Your task to perform on an android device: Search for razer blade on newegg, select the first entry, add it to the cart, then select checkout. Image 0: 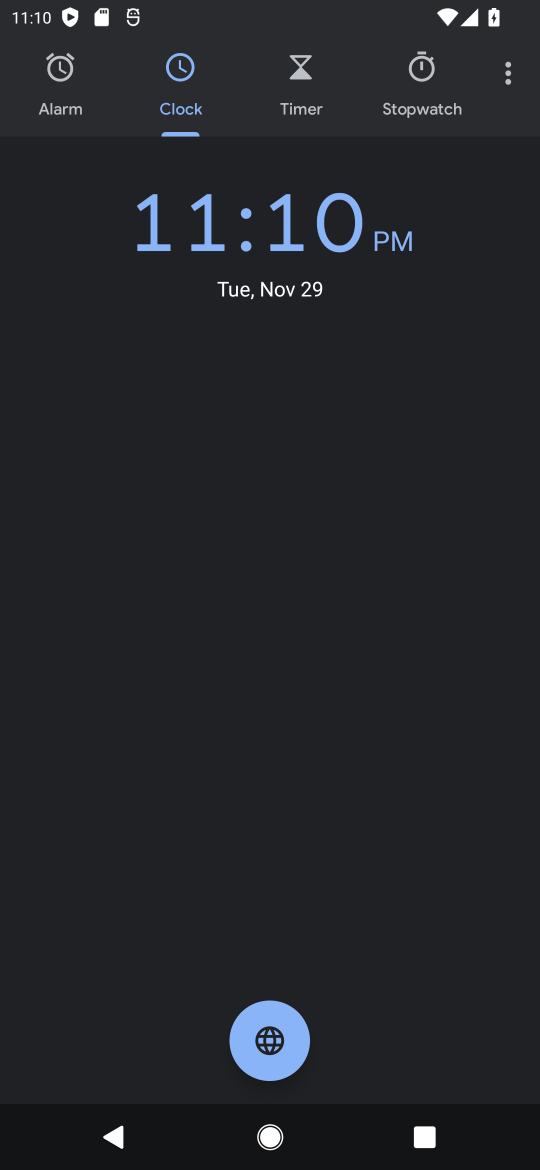
Step 0: press home button
Your task to perform on an android device: Search for razer blade on newegg, select the first entry, add it to the cart, then select checkout. Image 1: 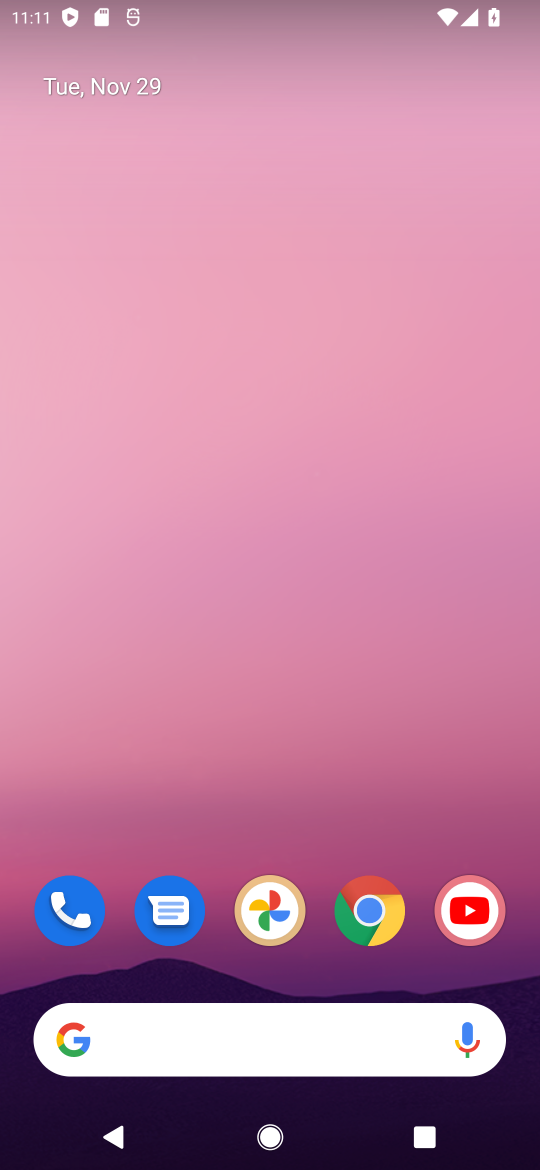
Step 1: click (360, 915)
Your task to perform on an android device: Search for razer blade on newegg, select the first entry, add it to the cart, then select checkout. Image 2: 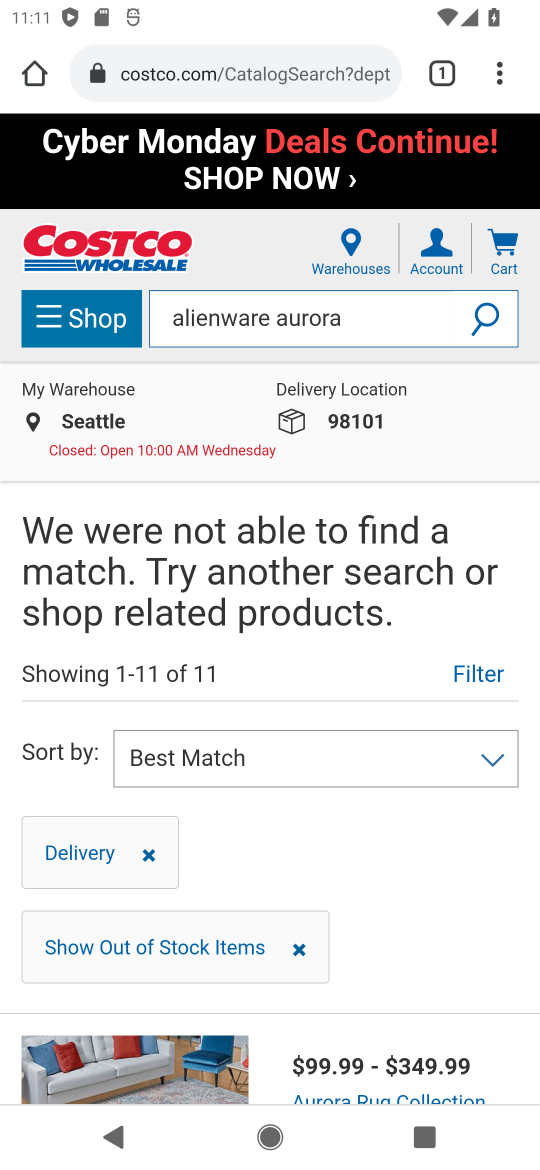
Step 2: click (231, 71)
Your task to perform on an android device: Search for razer blade on newegg, select the first entry, add it to the cart, then select checkout. Image 3: 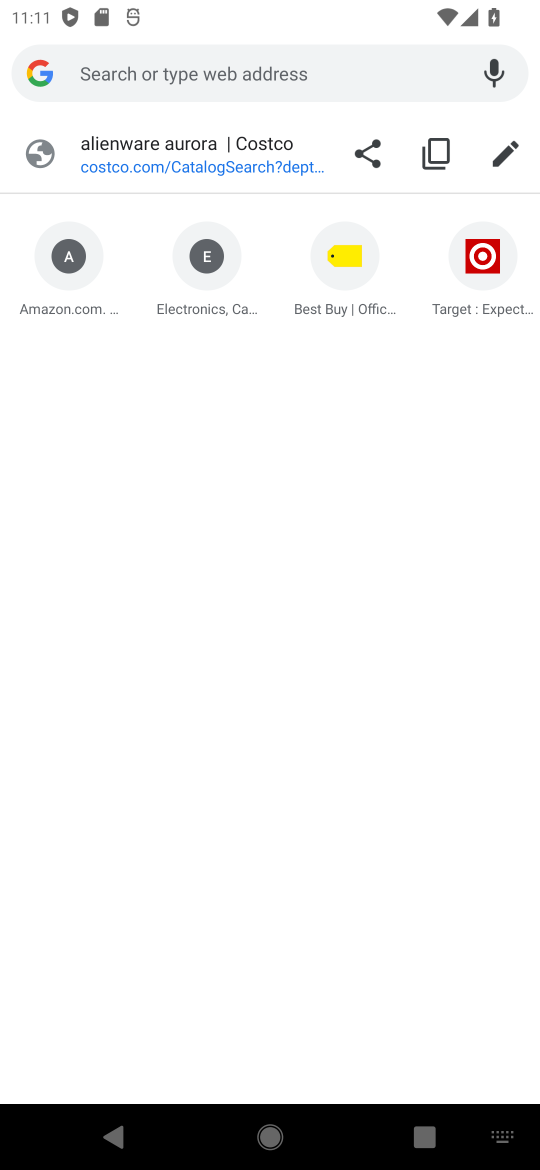
Step 3: type "newegg.com"
Your task to perform on an android device: Search for razer blade on newegg, select the first entry, add it to the cart, then select checkout. Image 4: 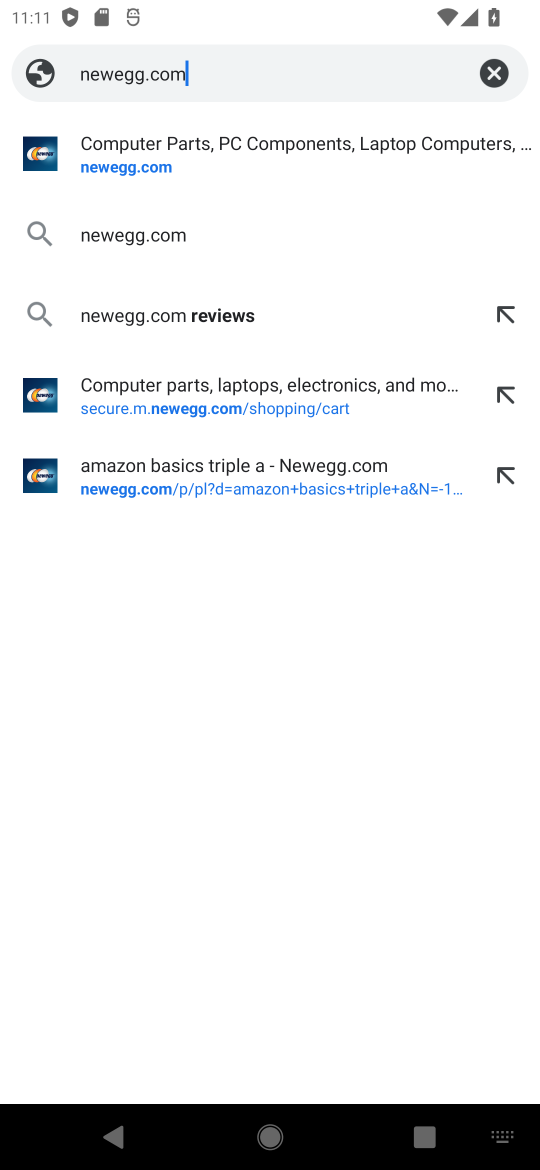
Step 4: click (120, 171)
Your task to perform on an android device: Search for razer blade on newegg, select the first entry, add it to the cart, then select checkout. Image 5: 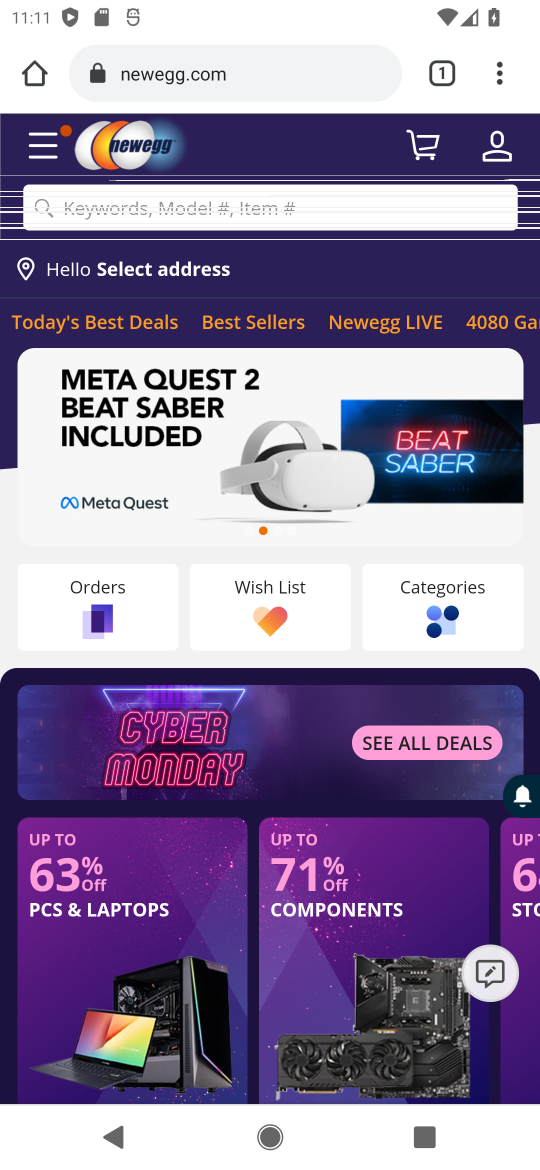
Step 5: click (115, 207)
Your task to perform on an android device: Search for razer blade on newegg, select the first entry, add it to the cart, then select checkout. Image 6: 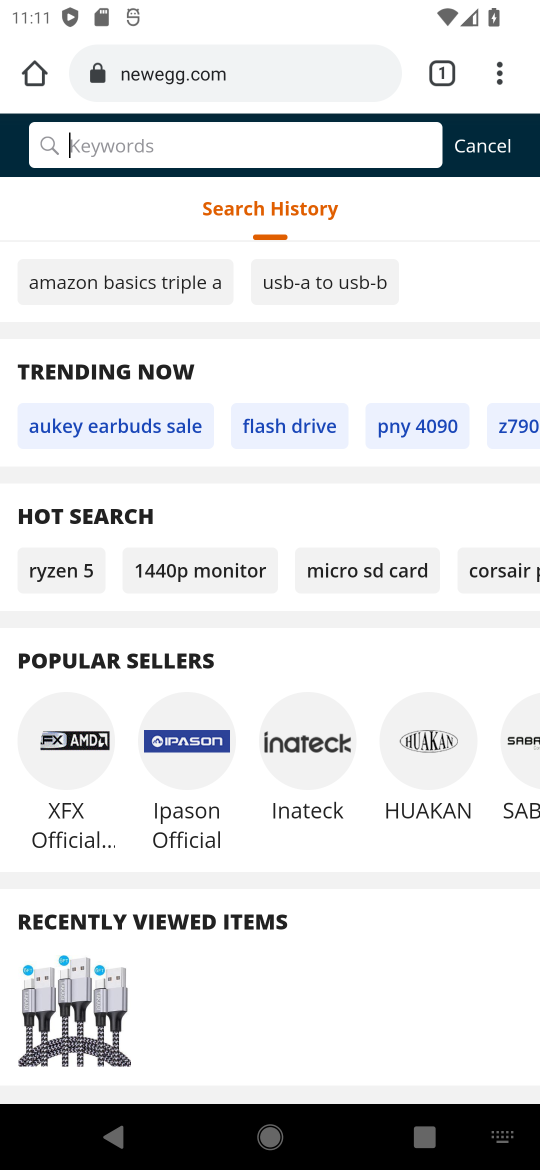
Step 6: type "razer blade"
Your task to perform on an android device: Search for razer blade on newegg, select the first entry, add it to the cart, then select checkout. Image 7: 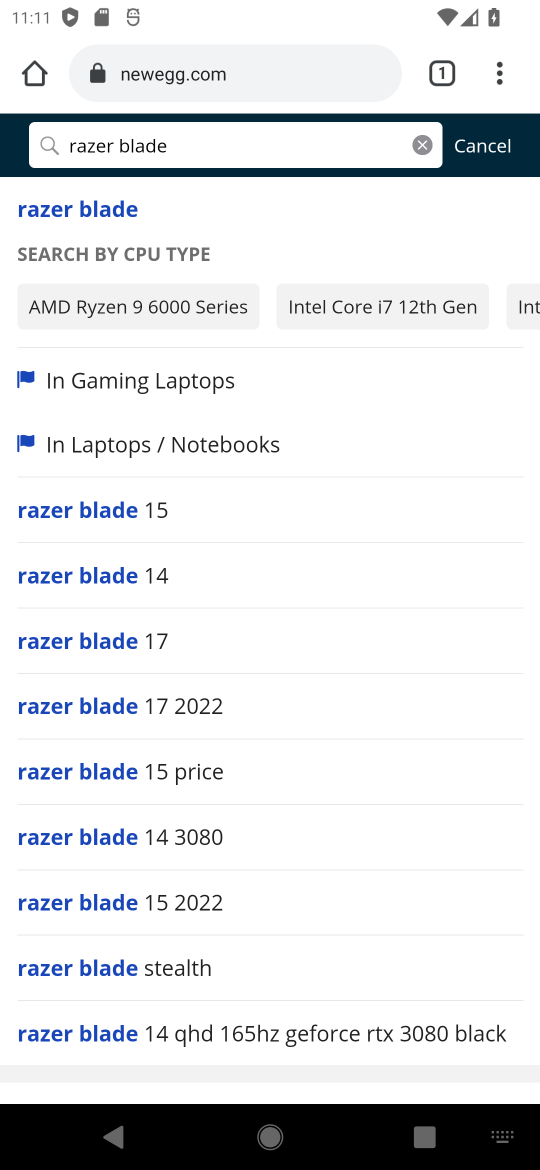
Step 7: click (100, 209)
Your task to perform on an android device: Search for razer blade on newegg, select the first entry, add it to the cart, then select checkout. Image 8: 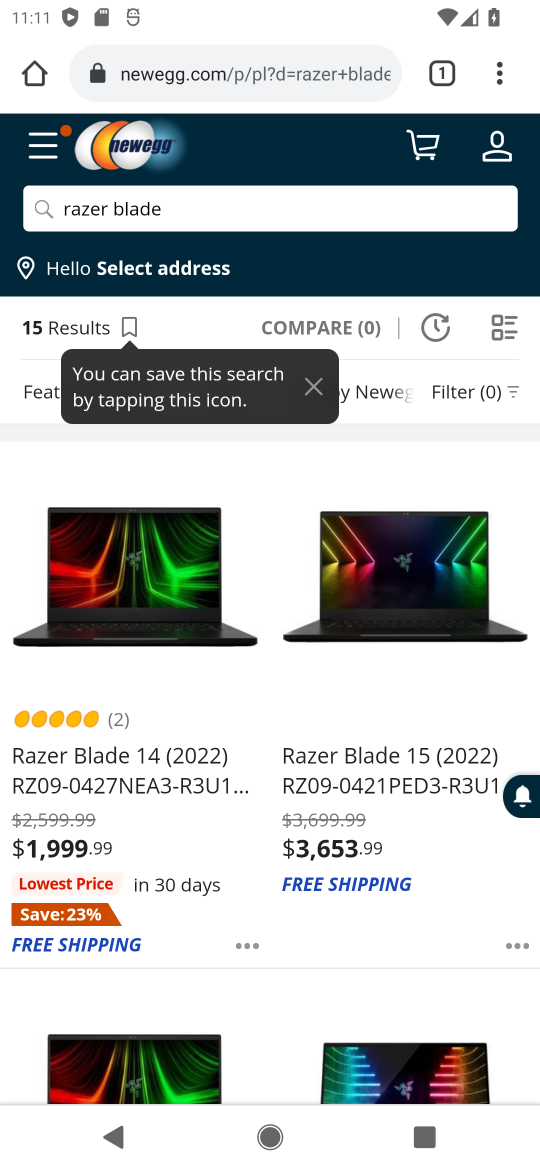
Step 8: click (98, 615)
Your task to perform on an android device: Search for razer blade on newegg, select the first entry, add it to the cart, then select checkout. Image 9: 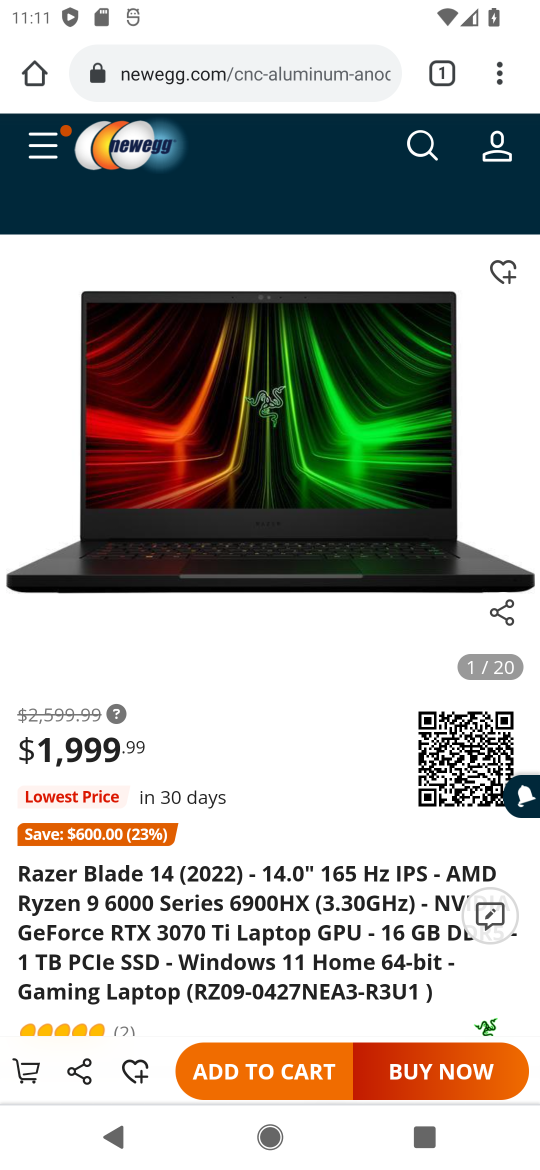
Step 9: click (246, 1057)
Your task to perform on an android device: Search for razer blade on newegg, select the first entry, add it to the cart, then select checkout. Image 10: 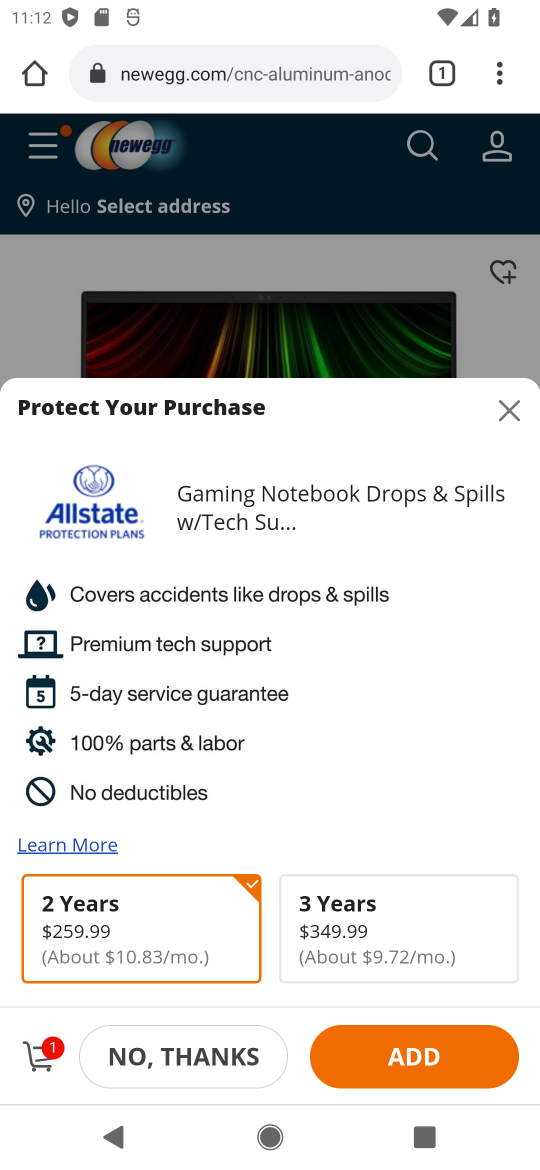
Step 10: click (43, 1066)
Your task to perform on an android device: Search for razer blade on newegg, select the first entry, add it to the cart, then select checkout. Image 11: 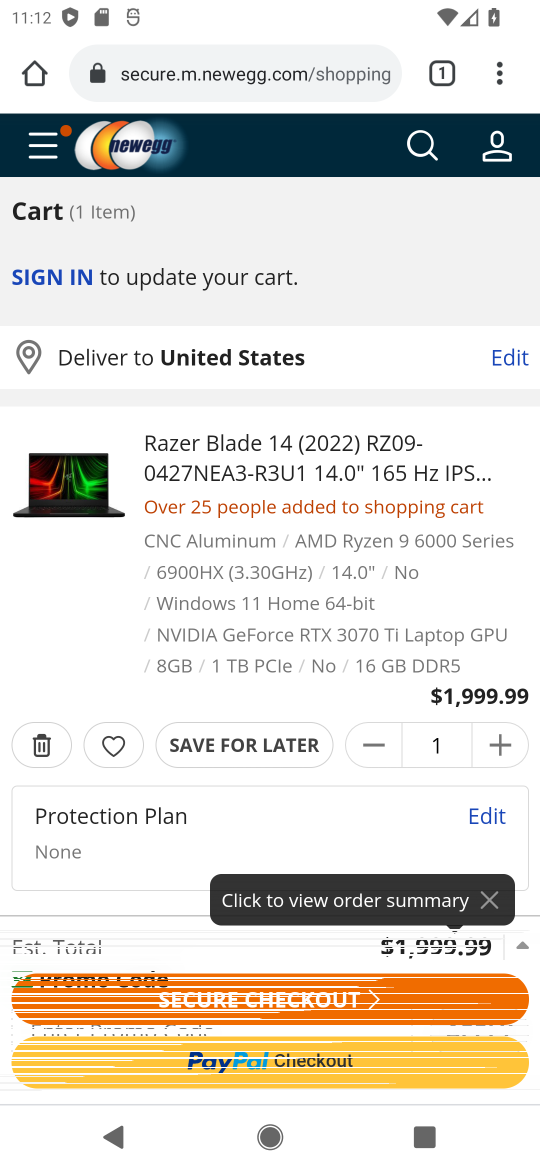
Step 11: click (279, 1003)
Your task to perform on an android device: Search for razer blade on newegg, select the first entry, add it to the cart, then select checkout. Image 12: 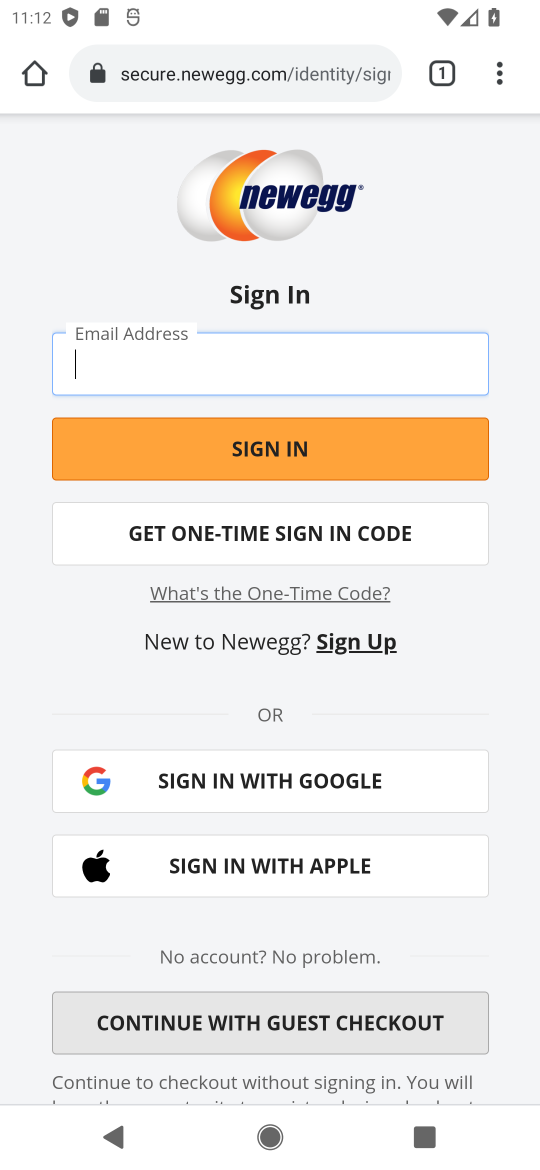
Step 12: task complete